Your task to perform on an android device: Turn on the flashlight Image 0: 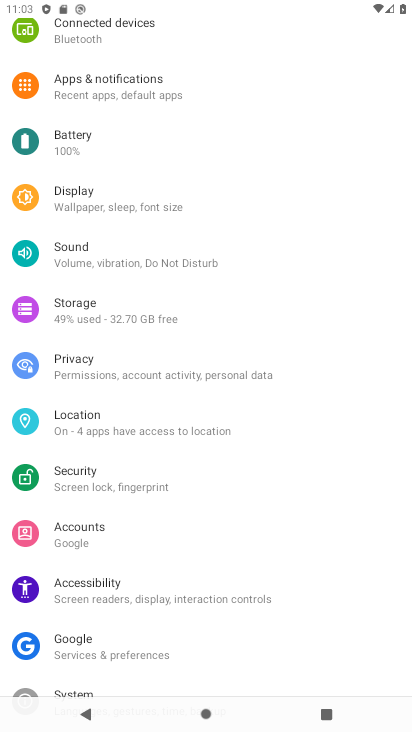
Step 0: task impossible